Your task to perform on an android device: allow notifications from all sites in the chrome app Image 0: 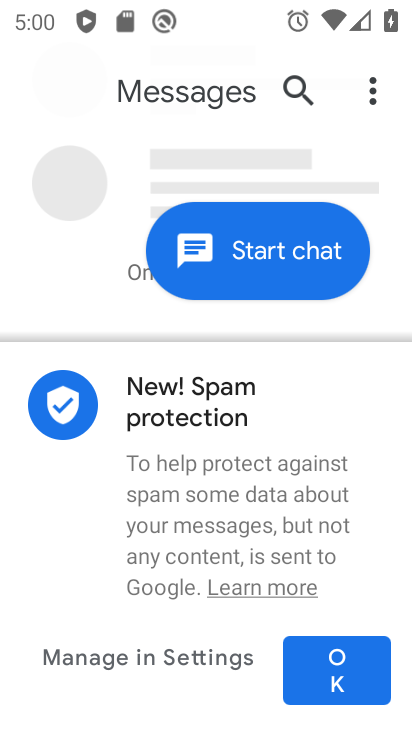
Step 0: press home button
Your task to perform on an android device: allow notifications from all sites in the chrome app Image 1: 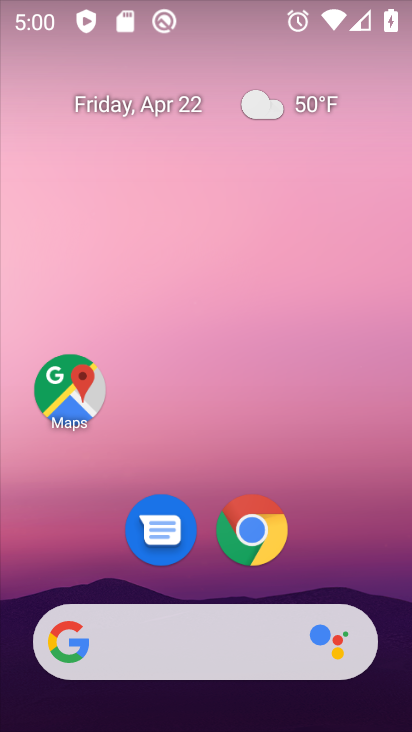
Step 1: drag from (358, 544) to (408, 97)
Your task to perform on an android device: allow notifications from all sites in the chrome app Image 2: 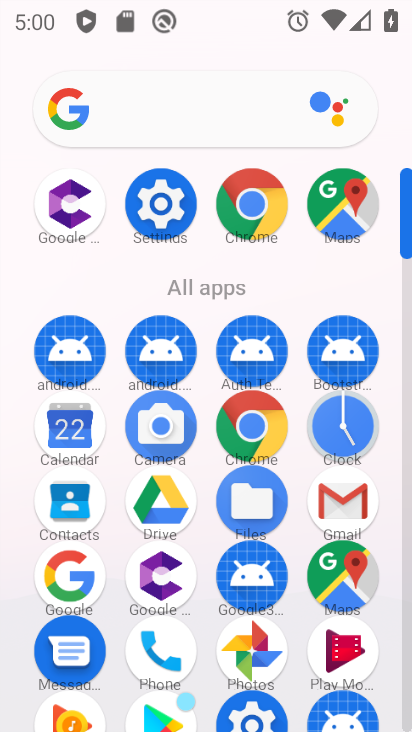
Step 2: click (239, 420)
Your task to perform on an android device: allow notifications from all sites in the chrome app Image 3: 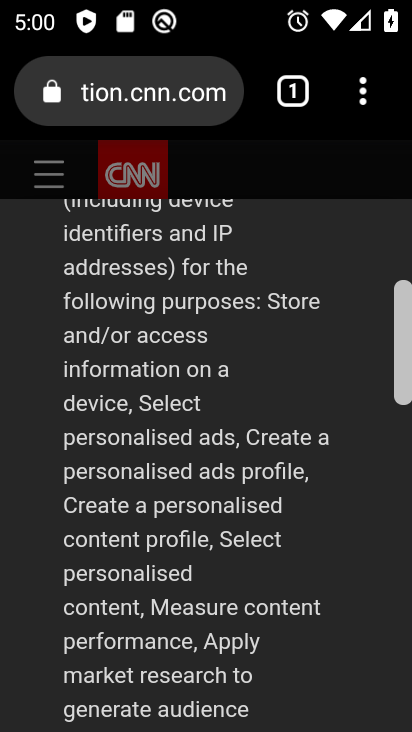
Step 3: drag from (362, 94) to (144, 569)
Your task to perform on an android device: allow notifications from all sites in the chrome app Image 4: 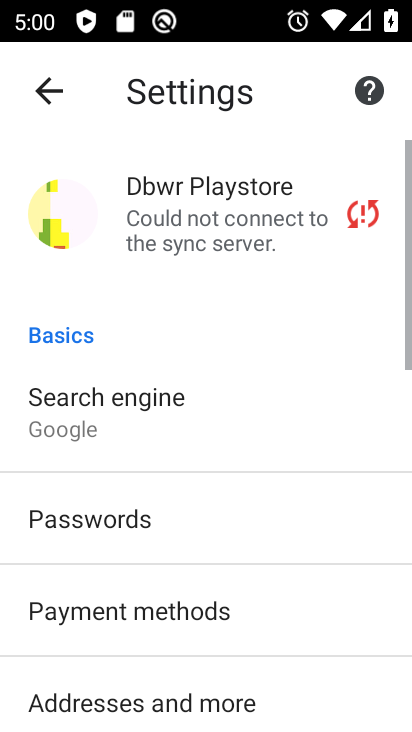
Step 4: drag from (322, 642) to (300, 349)
Your task to perform on an android device: allow notifications from all sites in the chrome app Image 5: 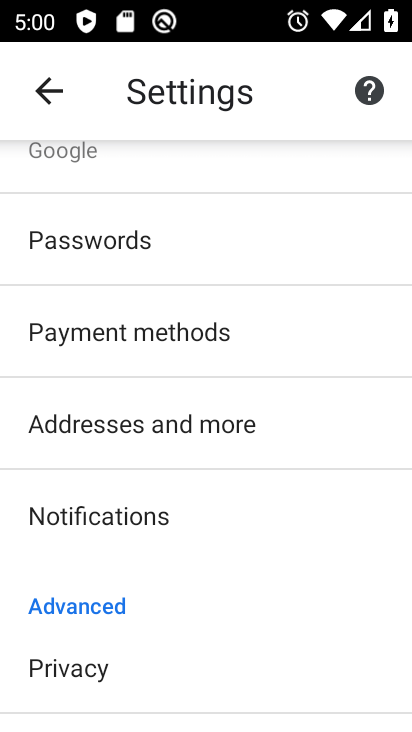
Step 5: drag from (236, 674) to (263, 348)
Your task to perform on an android device: allow notifications from all sites in the chrome app Image 6: 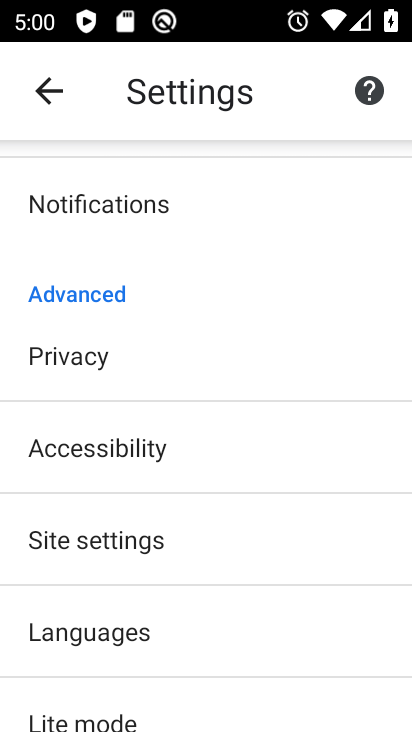
Step 6: click (136, 548)
Your task to perform on an android device: allow notifications from all sites in the chrome app Image 7: 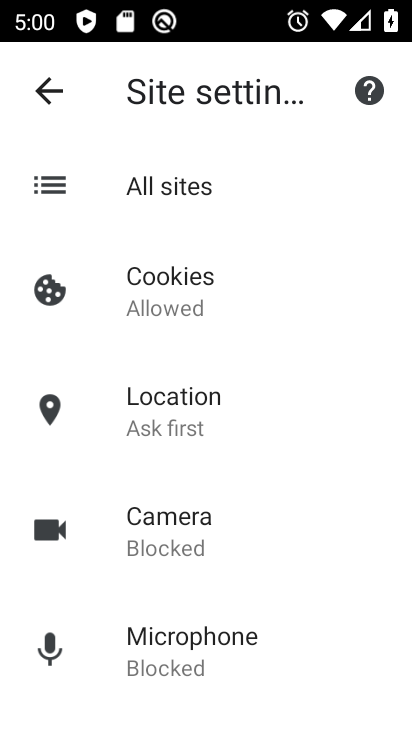
Step 7: click (186, 185)
Your task to perform on an android device: allow notifications from all sites in the chrome app Image 8: 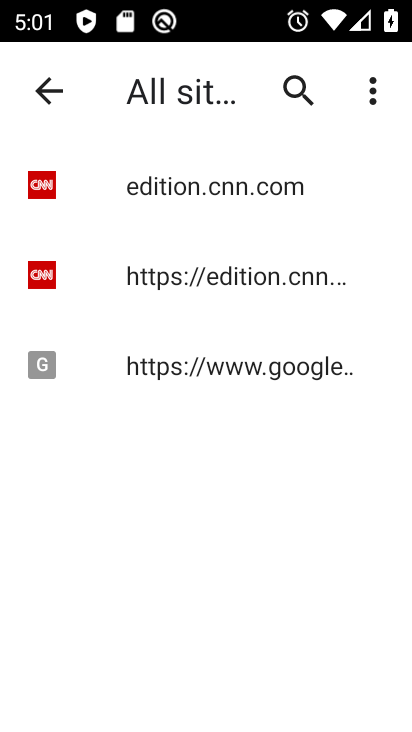
Step 8: click (190, 359)
Your task to perform on an android device: allow notifications from all sites in the chrome app Image 9: 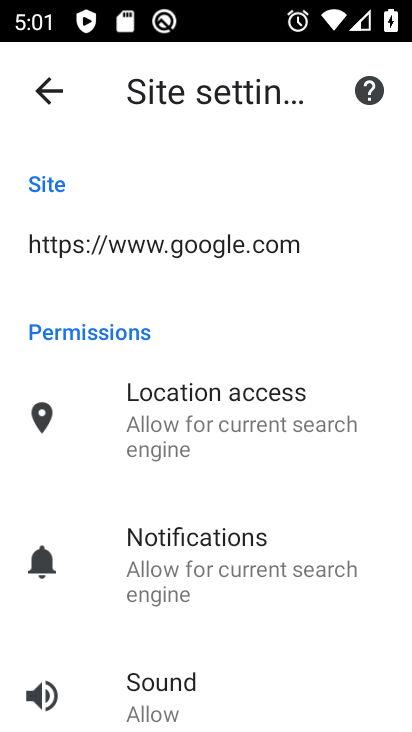
Step 9: click (209, 563)
Your task to perform on an android device: allow notifications from all sites in the chrome app Image 10: 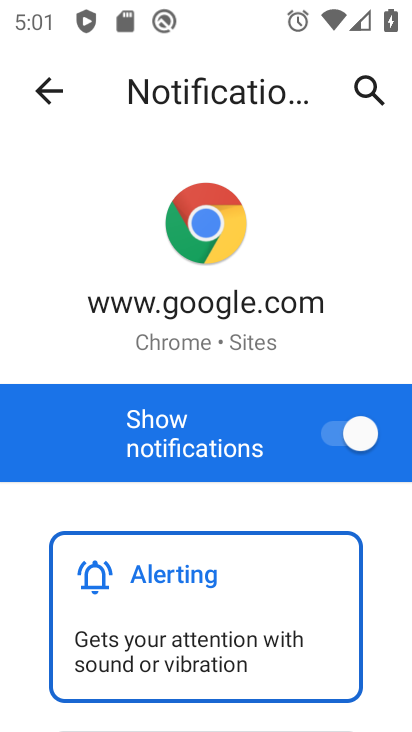
Step 10: task complete